Your task to perform on an android device: turn on data saver in the chrome app Image 0: 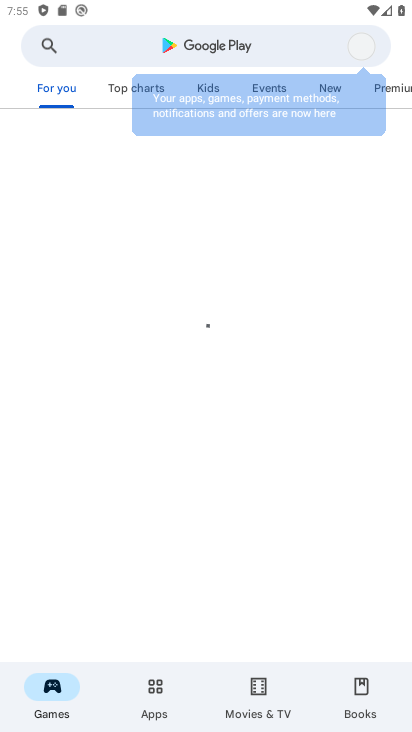
Step 0: press home button
Your task to perform on an android device: turn on data saver in the chrome app Image 1: 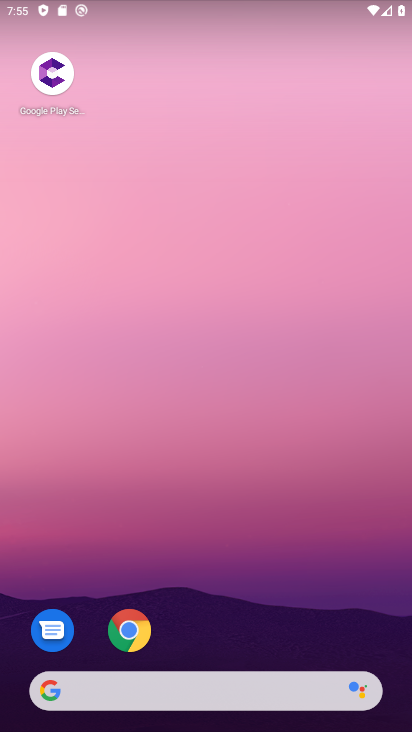
Step 1: drag from (186, 642) to (151, 20)
Your task to perform on an android device: turn on data saver in the chrome app Image 2: 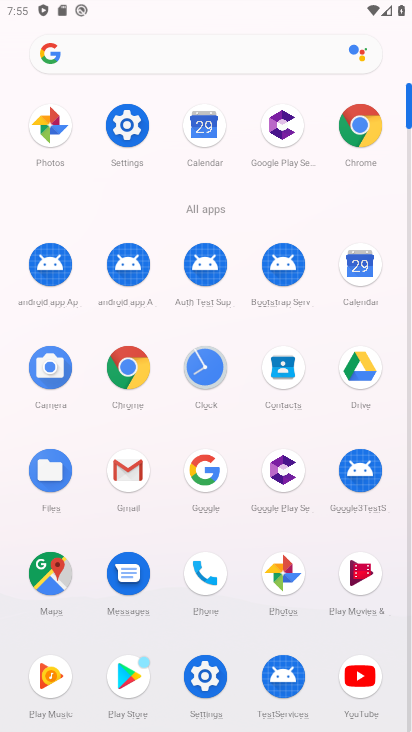
Step 2: click (139, 372)
Your task to perform on an android device: turn on data saver in the chrome app Image 3: 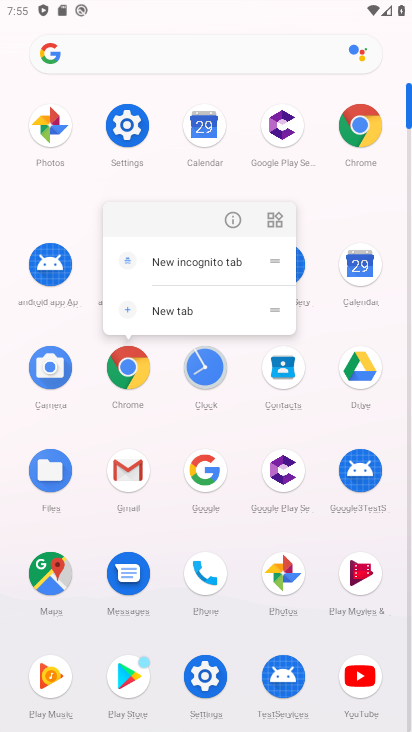
Step 3: click (130, 381)
Your task to perform on an android device: turn on data saver in the chrome app Image 4: 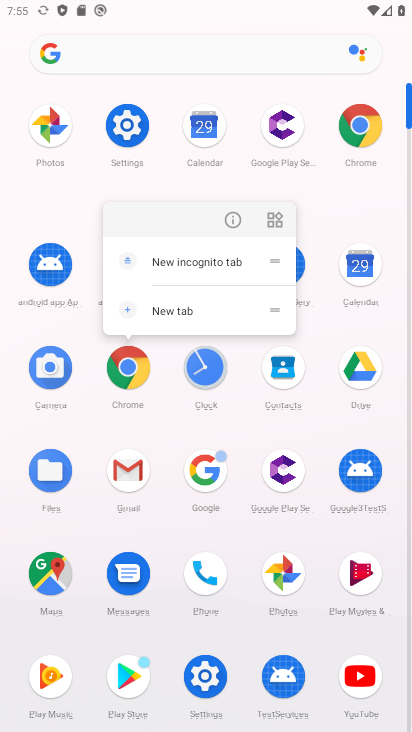
Step 4: click (111, 377)
Your task to perform on an android device: turn on data saver in the chrome app Image 5: 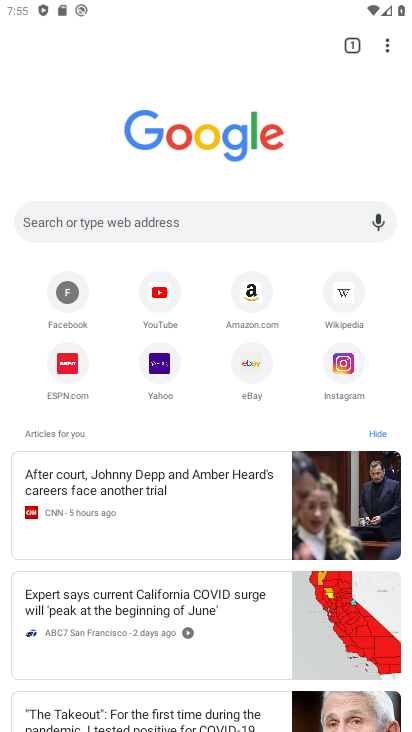
Step 5: drag from (389, 41) to (219, 383)
Your task to perform on an android device: turn on data saver in the chrome app Image 6: 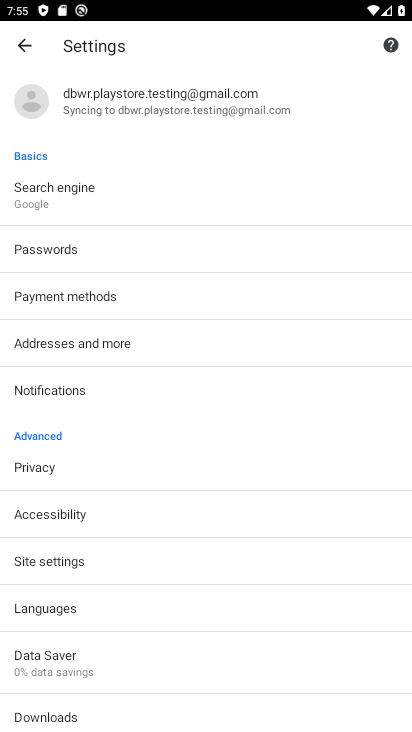
Step 6: click (55, 669)
Your task to perform on an android device: turn on data saver in the chrome app Image 7: 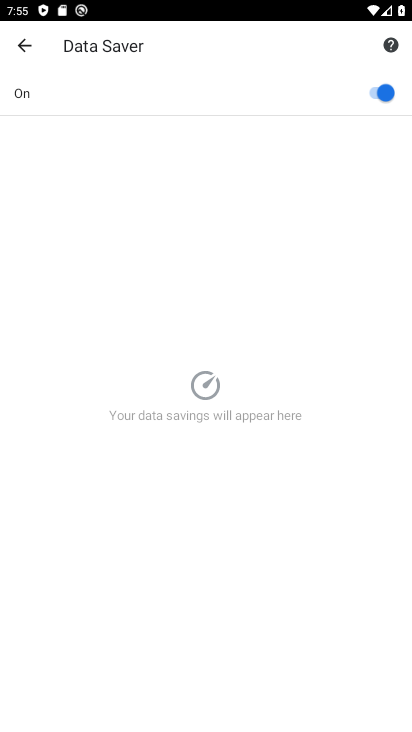
Step 7: task complete